Your task to perform on an android device: toggle pop-ups in chrome Image 0: 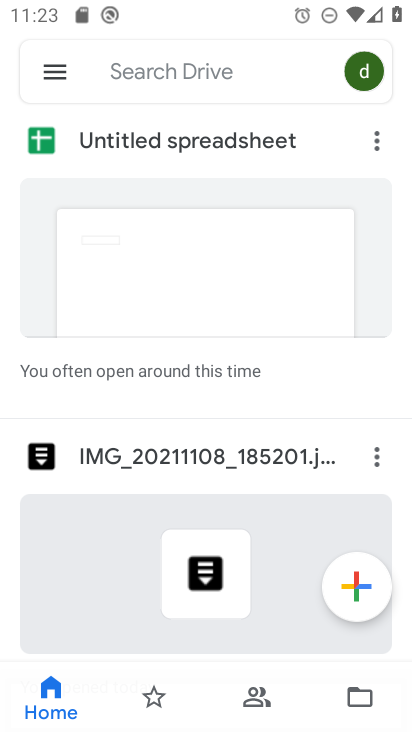
Step 0: press home button
Your task to perform on an android device: toggle pop-ups in chrome Image 1: 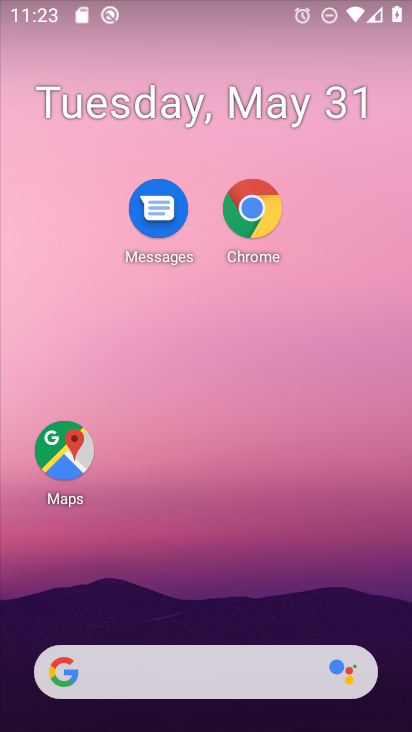
Step 1: click (253, 200)
Your task to perform on an android device: toggle pop-ups in chrome Image 2: 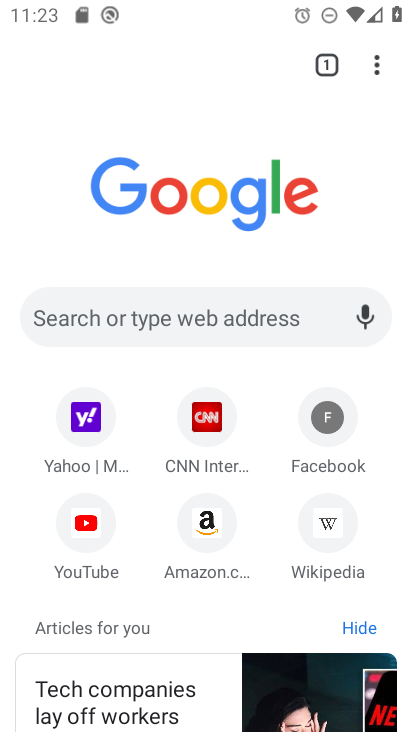
Step 2: click (377, 54)
Your task to perform on an android device: toggle pop-ups in chrome Image 3: 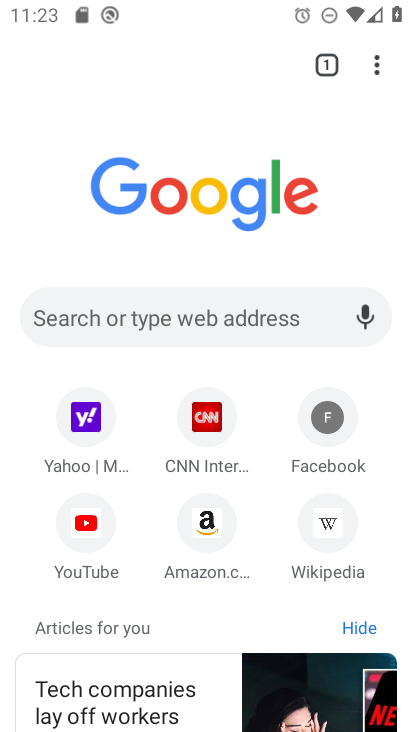
Step 3: click (378, 57)
Your task to perform on an android device: toggle pop-ups in chrome Image 4: 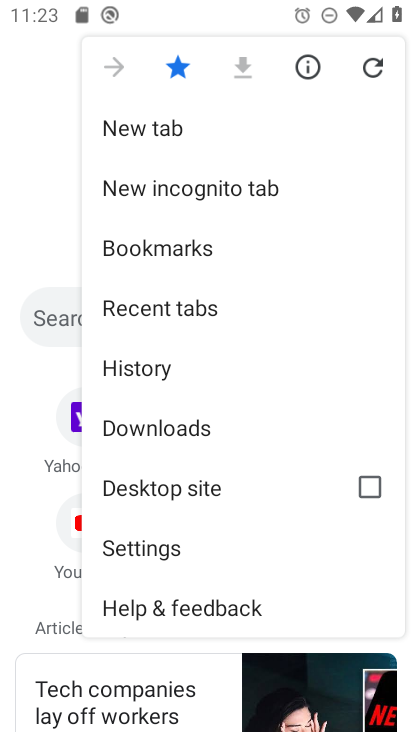
Step 4: click (196, 537)
Your task to perform on an android device: toggle pop-ups in chrome Image 5: 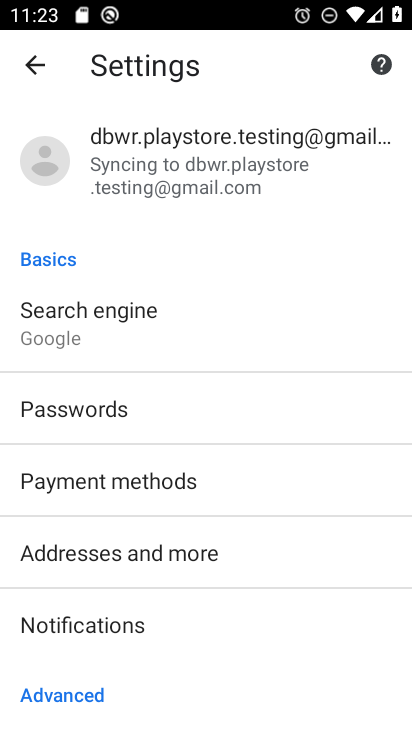
Step 5: drag from (247, 652) to (310, 80)
Your task to perform on an android device: toggle pop-ups in chrome Image 6: 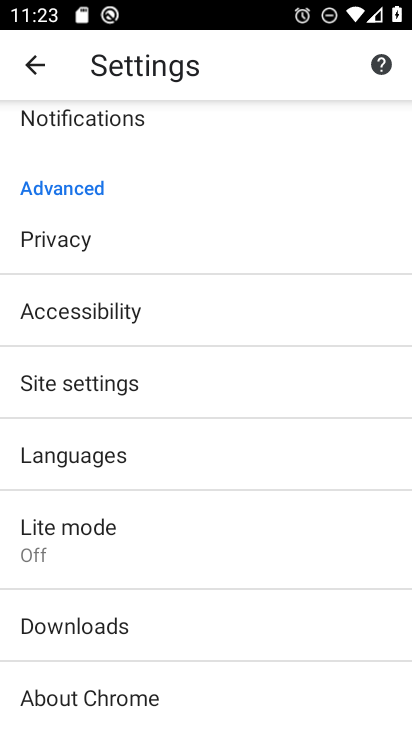
Step 6: click (171, 383)
Your task to perform on an android device: toggle pop-ups in chrome Image 7: 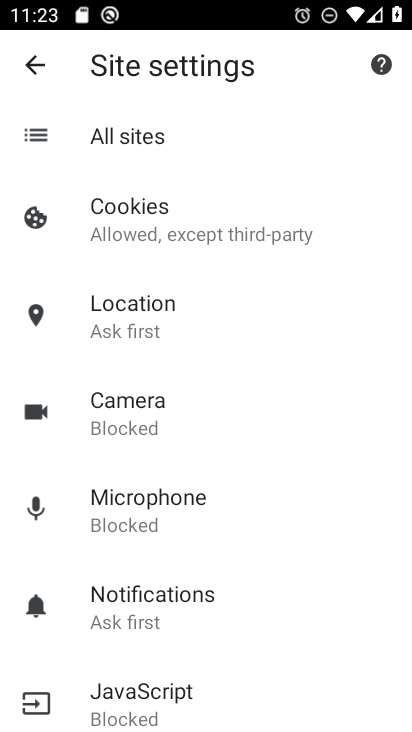
Step 7: drag from (213, 675) to (240, 148)
Your task to perform on an android device: toggle pop-ups in chrome Image 8: 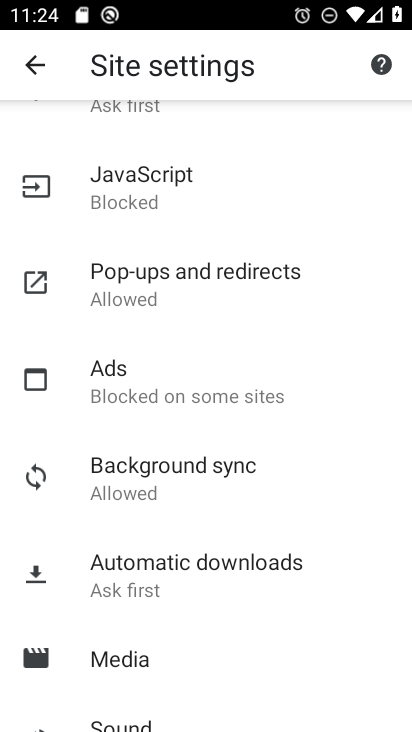
Step 8: click (187, 277)
Your task to perform on an android device: toggle pop-ups in chrome Image 9: 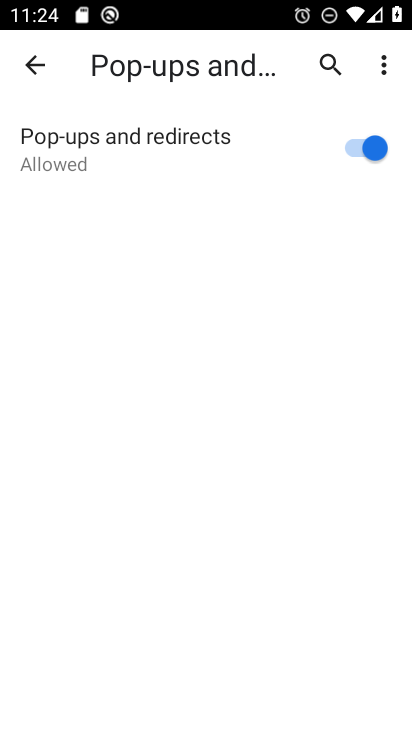
Step 9: task complete